Your task to perform on an android device: read, delete, or share a saved page in the chrome app Image 0: 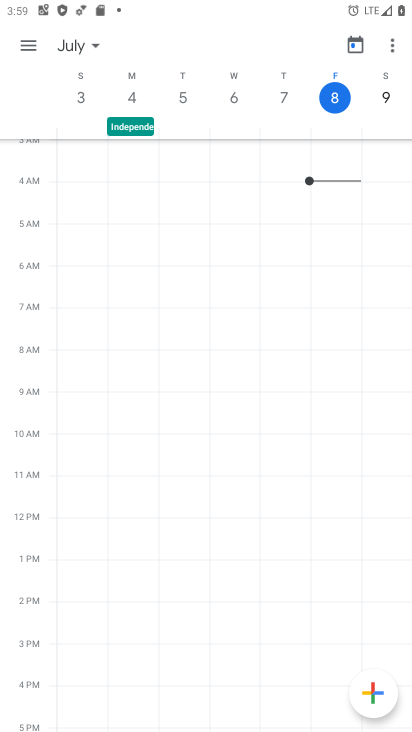
Step 0: press home button
Your task to perform on an android device: read, delete, or share a saved page in the chrome app Image 1: 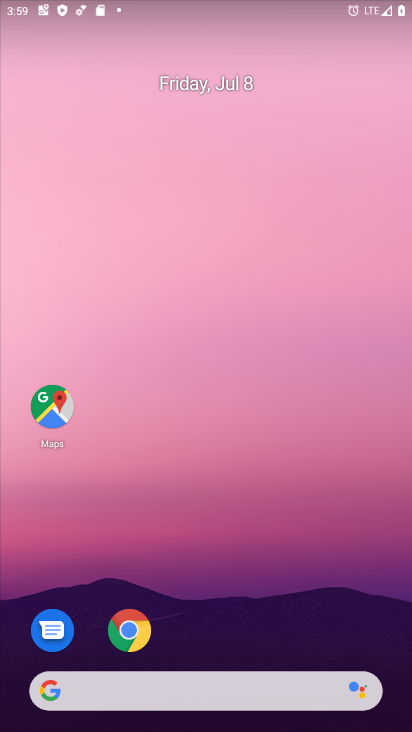
Step 1: click (130, 631)
Your task to perform on an android device: read, delete, or share a saved page in the chrome app Image 2: 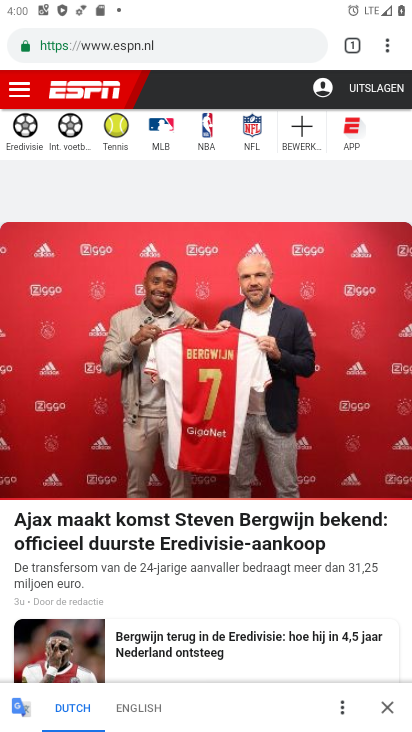
Step 2: click (384, 46)
Your task to perform on an android device: read, delete, or share a saved page in the chrome app Image 3: 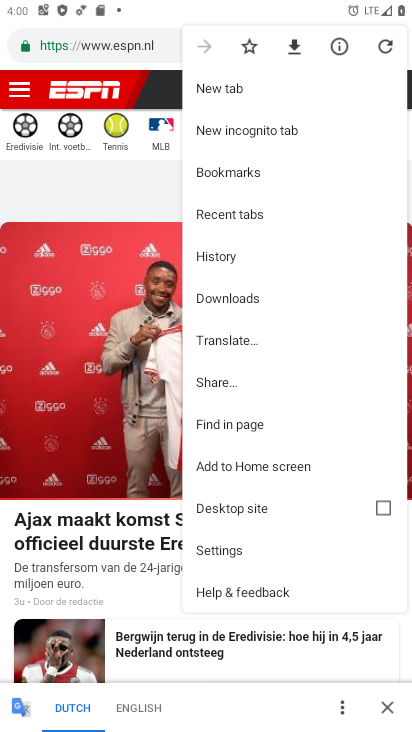
Step 3: click (245, 295)
Your task to perform on an android device: read, delete, or share a saved page in the chrome app Image 4: 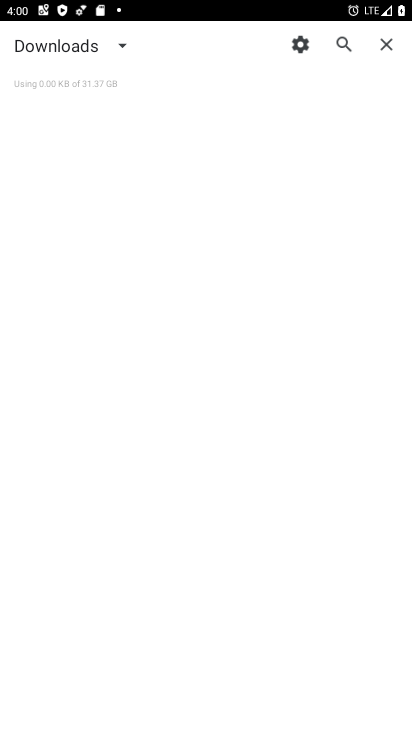
Step 4: click (119, 43)
Your task to perform on an android device: read, delete, or share a saved page in the chrome app Image 5: 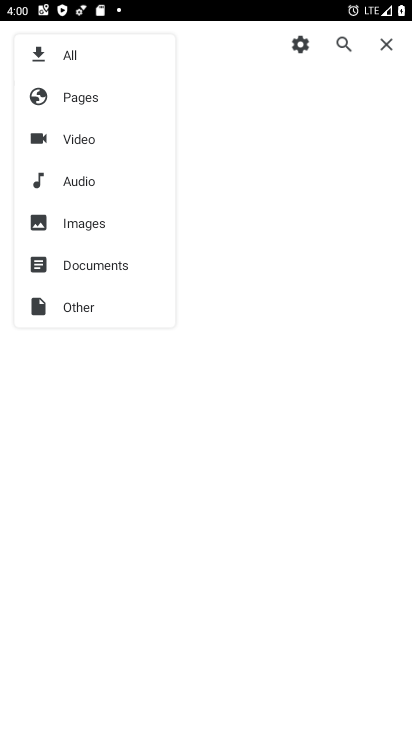
Step 5: click (86, 93)
Your task to perform on an android device: read, delete, or share a saved page in the chrome app Image 6: 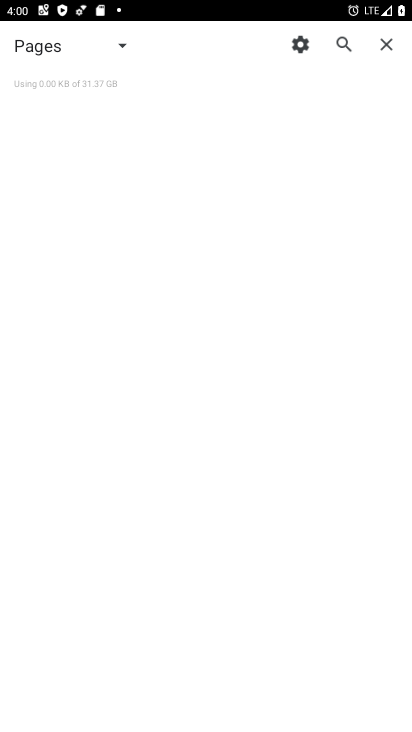
Step 6: click (122, 46)
Your task to perform on an android device: read, delete, or share a saved page in the chrome app Image 7: 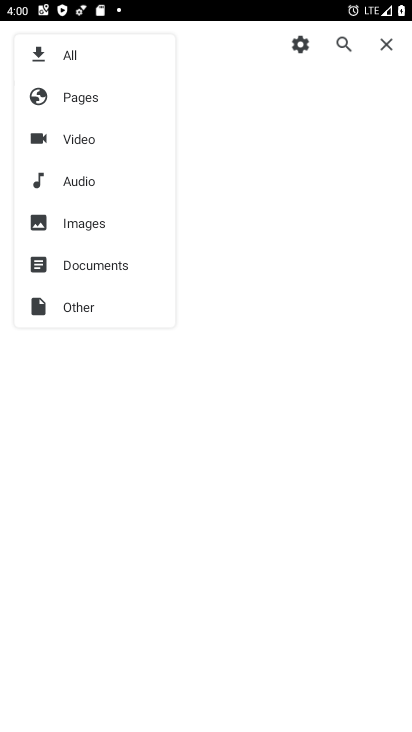
Step 7: click (81, 220)
Your task to perform on an android device: read, delete, or share a saved page in the chrome app Image 8: 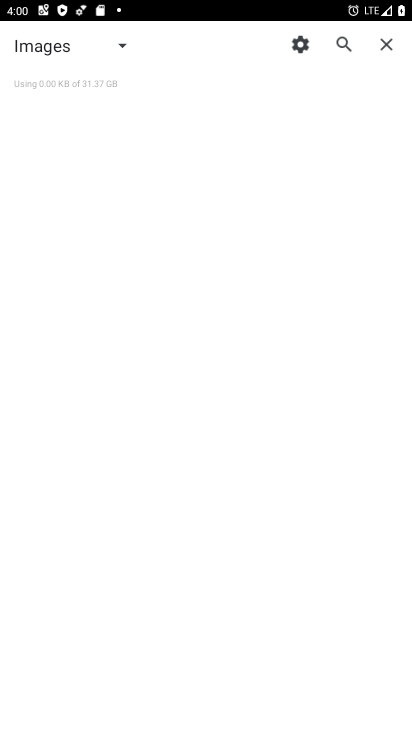
Step 8: task complete